Your task to perform on an android device: open app "Pluto TV - Live TV and Movies" (install if not already installed) and go to login screen Image 0: 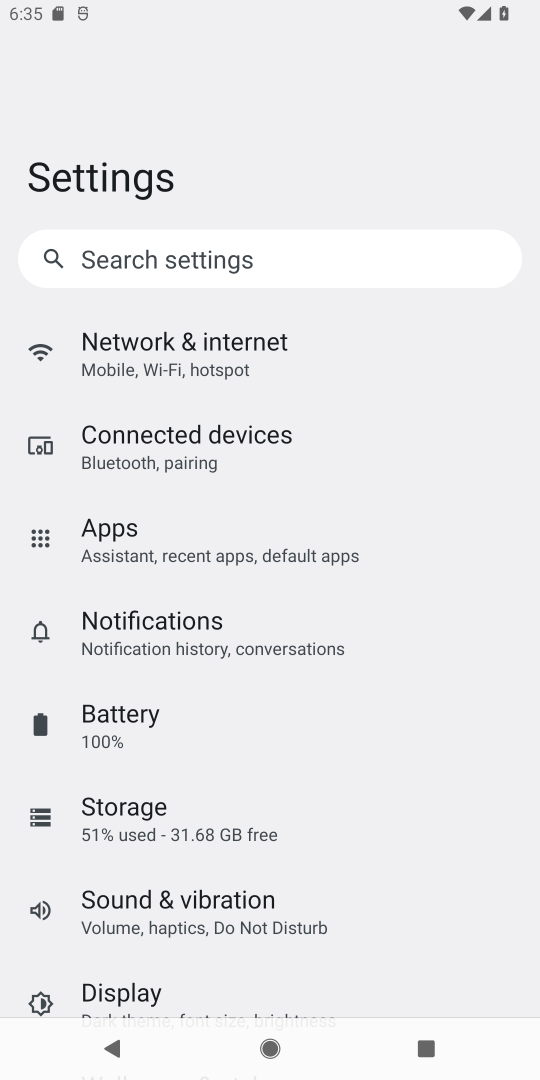
Step 0: press home button
Your task to perform on an android device: open app "Pluto TV - Live TV and Movies" (install if not already installed) and go to login screen Image 1: 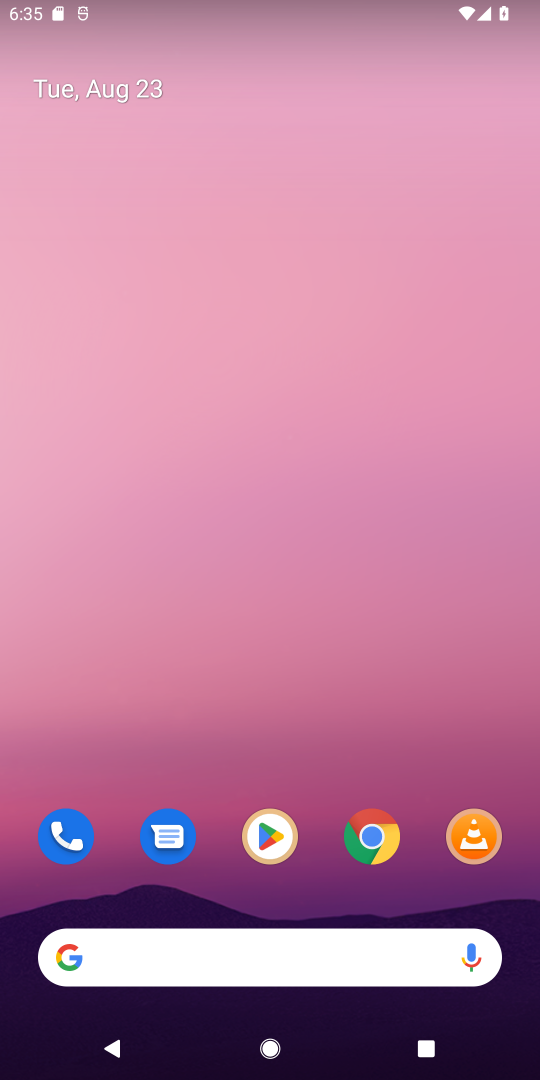
Step 1: click (265, 833)
Your task to perform on an android device: open app "Pluto TV - Live TV and Movies" (install if not already installed) and go to login screen Image 2: 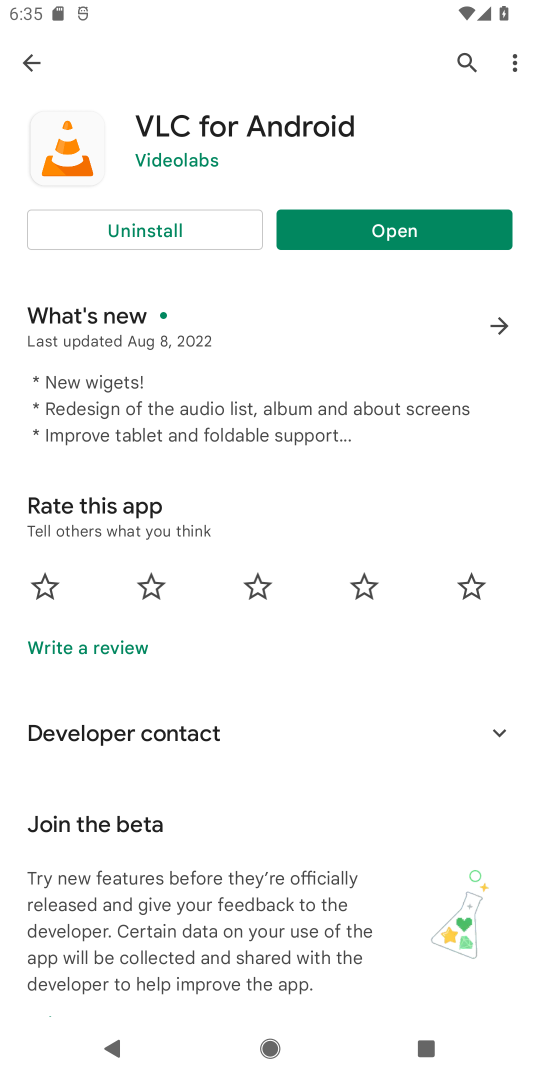
Step 2: click (463, 54)
Your task to perform on an android device: open app "Pluto TV - Live TV and Movies" (install if not already installed) and go to login screen Image 3: 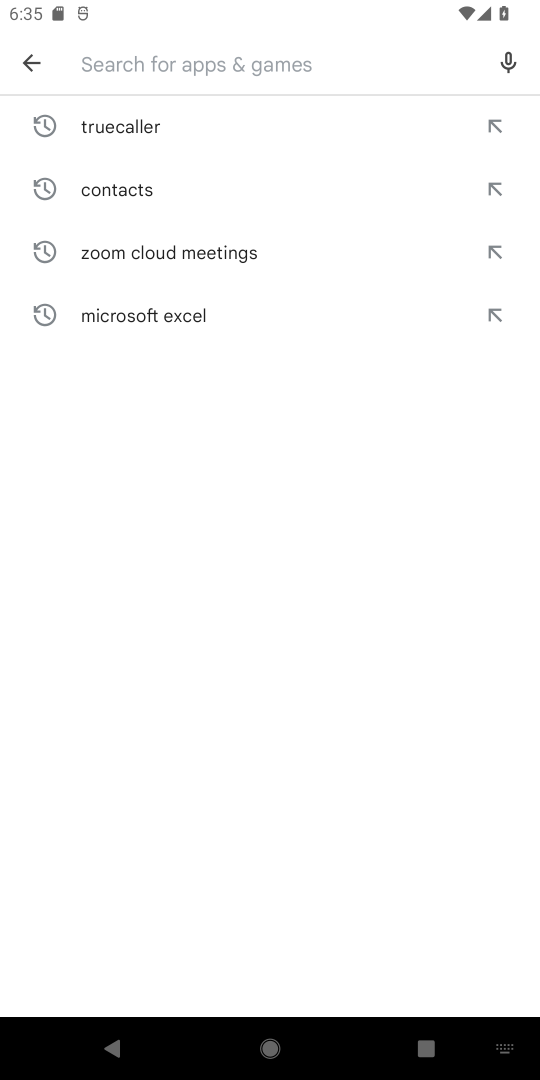
Step 3: type "Pluto TV - Live TV and Movies"
Your task to perform on an android device: open app "Pluto TV - Live TV and Movies" (install if not already installed) and go to login screen Image 4: 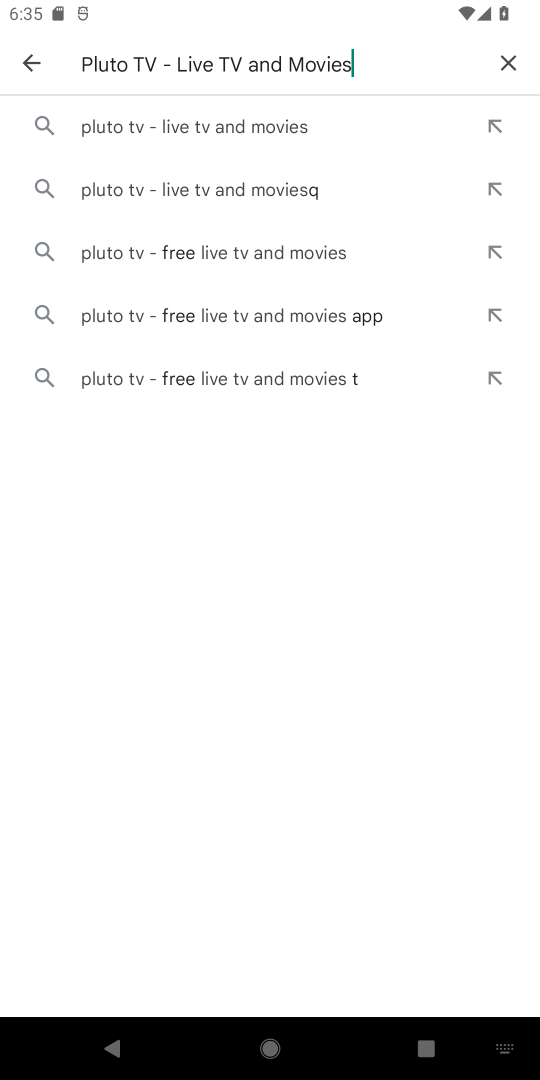
Step 4: click (186, 126)
Your task to perform on an android device: open app "Pluto TV - Live TV and Movies" (install if not already installed) and go to login screen Image 5: 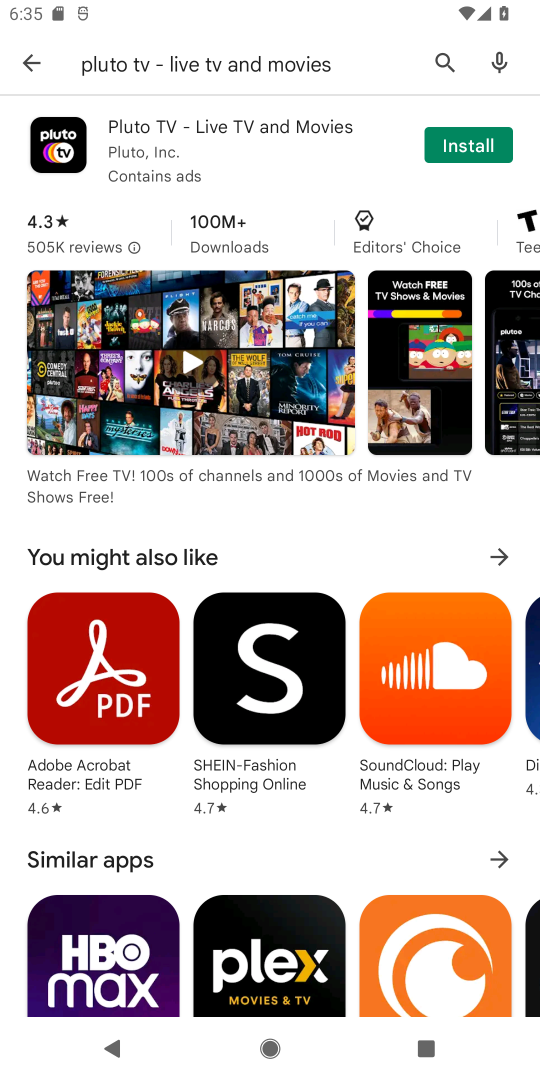
Step 5: click (452, 142)
Your task to perform on an android device: open app "Pluto TV - Live TV and Movies" (install if not already installed) and go to login screen Image 6: 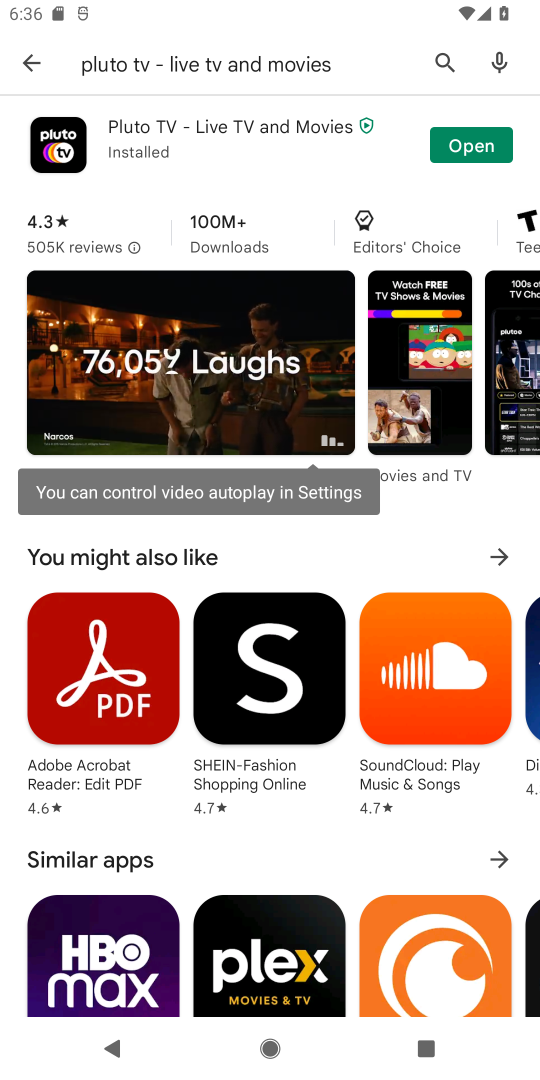
Step 6: click (464, 132)
Your task to perform on an android device: open app "Pluto TV - Live TV and Movies" (install if not already installed) and go to login screen Image 7: 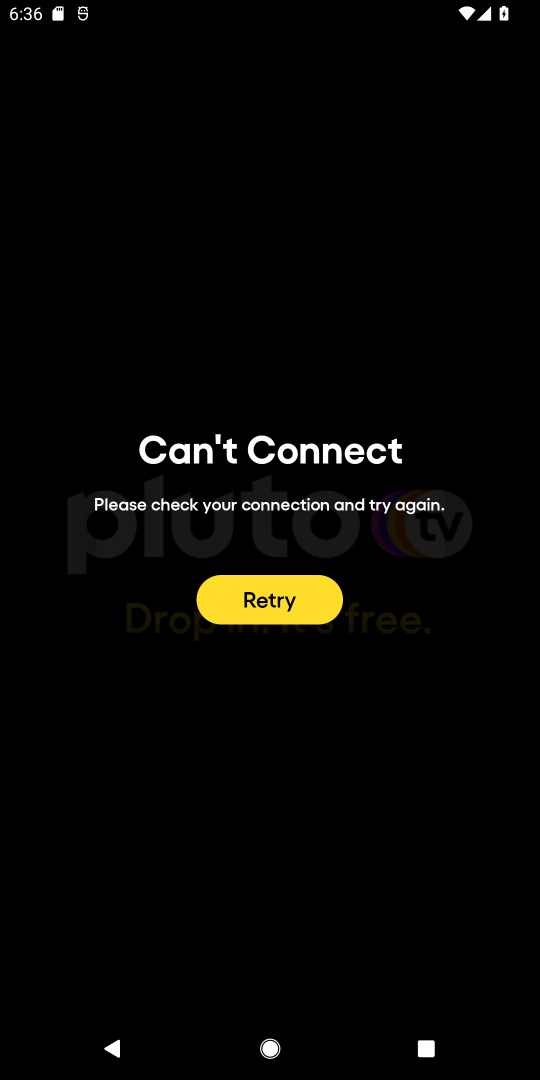
Step 7: task complete